Your task to perform on an android device: install app "ZOOM Cloud Meetings" Image 0: 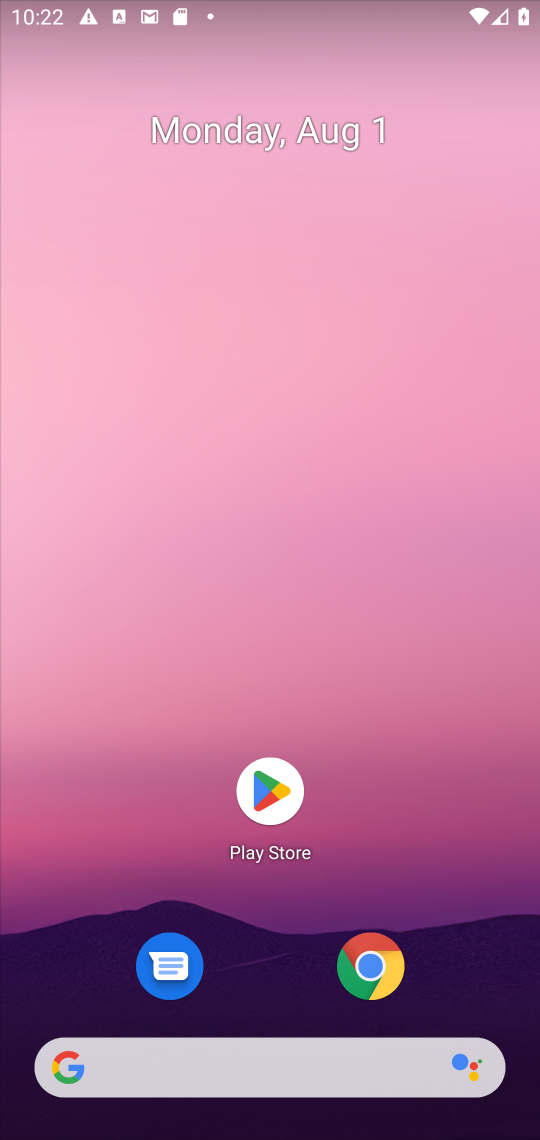
Step 0: click (288, 766)
Your task to perform on an android device: install app "ZOOM Cloud Meetings" Image 1: 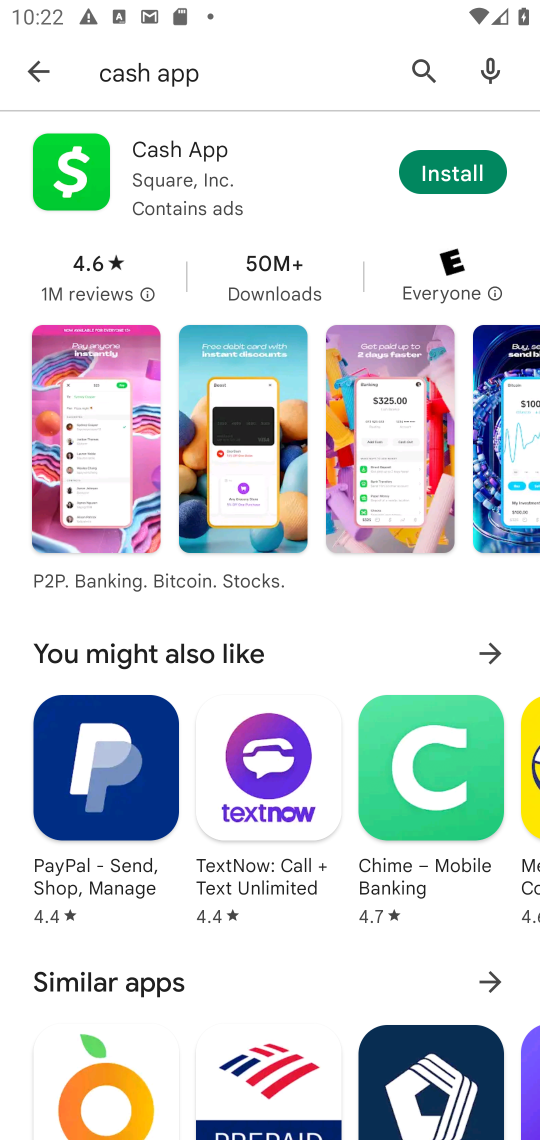
Step 1: click (419, 71)
Your task to perform on an android device: install app "ZOOM Cloud Meetings" Image 2: 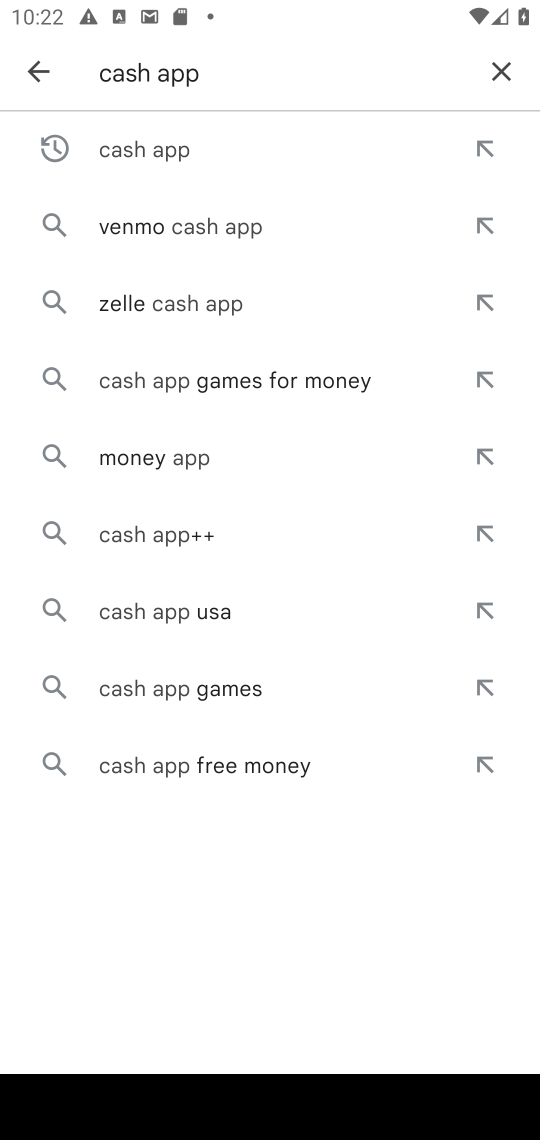
Step 2: click (503, 66)
Your task to perform on an android device: install app "ZOOM Cloud Meetings" Image 3: 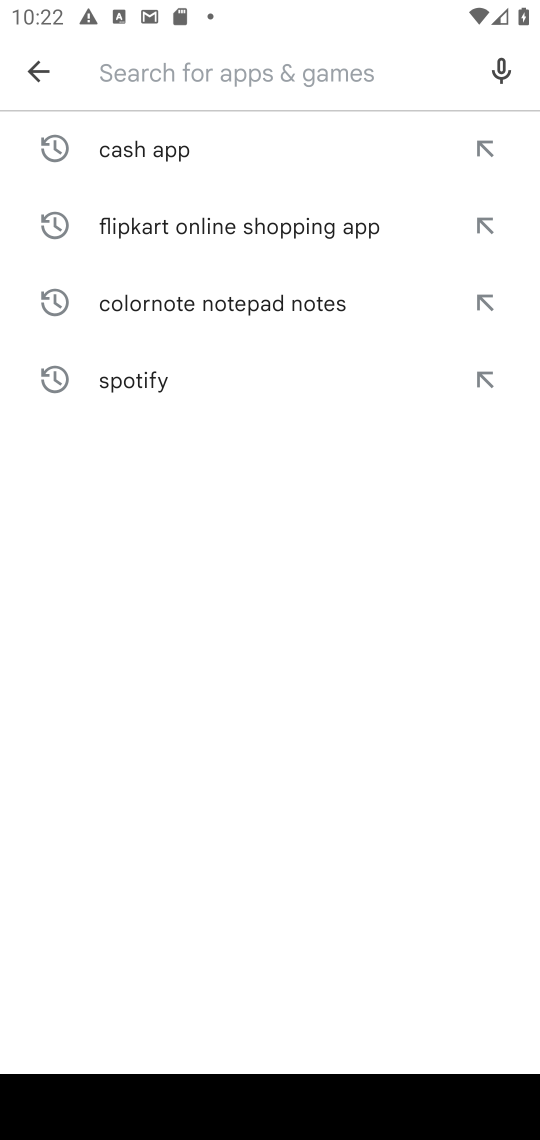
Step 3: type "ZOOM Cloud Meetings"
Your task to perform on an android device: install app "ZOOM Cloud Meetings" Image 4: 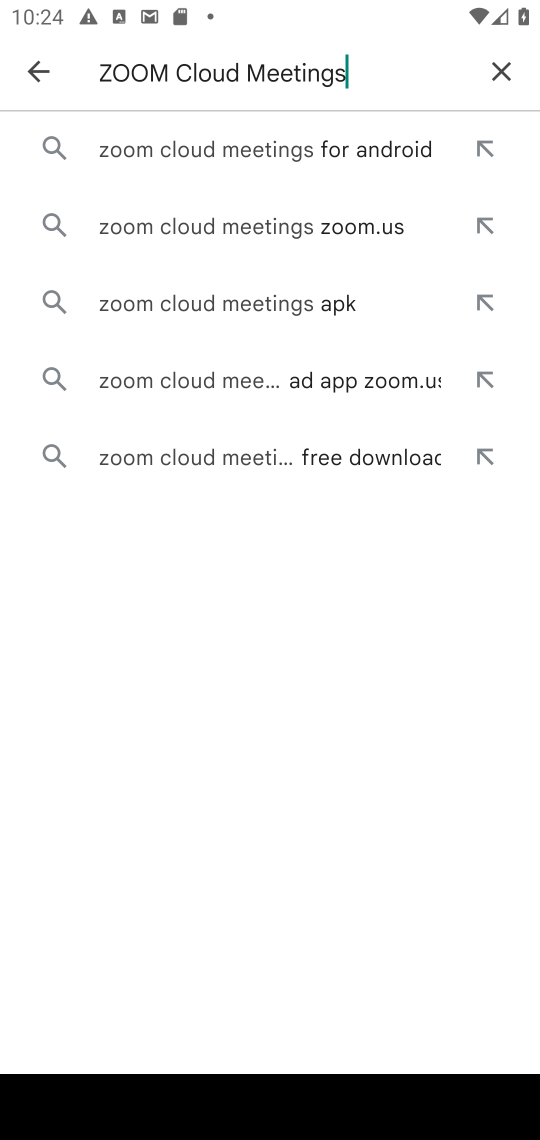
Step 4: click (233, 155)
Your task to perform on an android device: install app "ZOOM Cloud Meetings" Image 5: 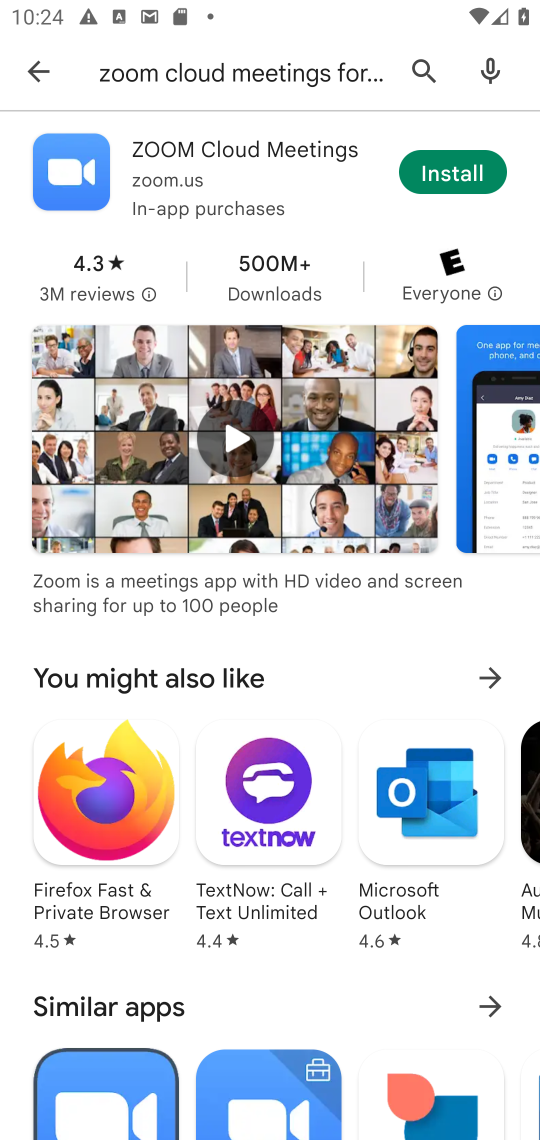
Step 5: click (489, 165)
Your task to perform on an android device: install app "ZOOM Cloud Meetings" Image 6: 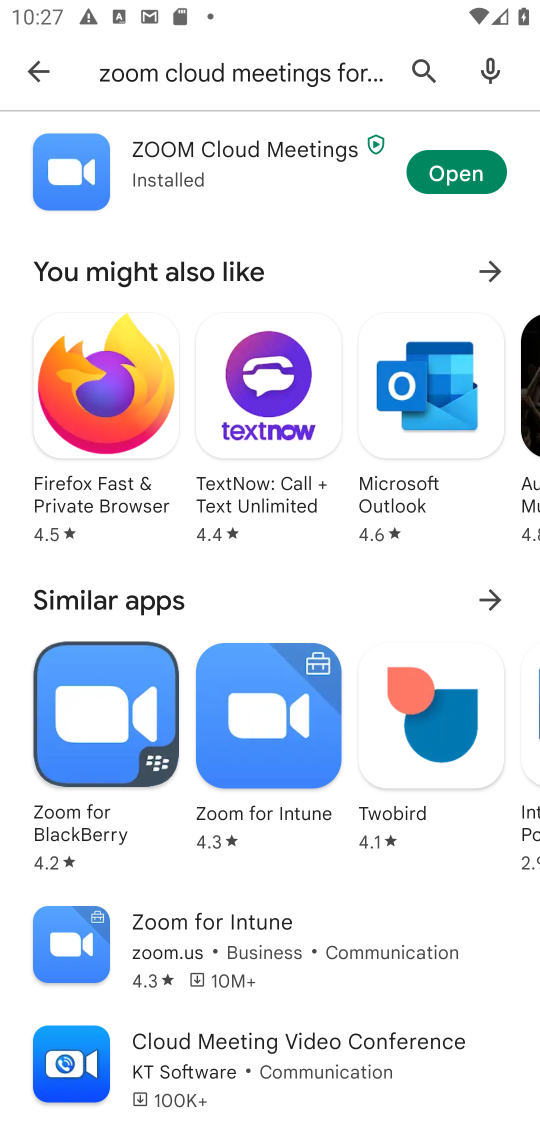
Step 6: click (421, 181)
Your task to perform on an android device: install app "ZOOM Cloud Meetings" Image 7: 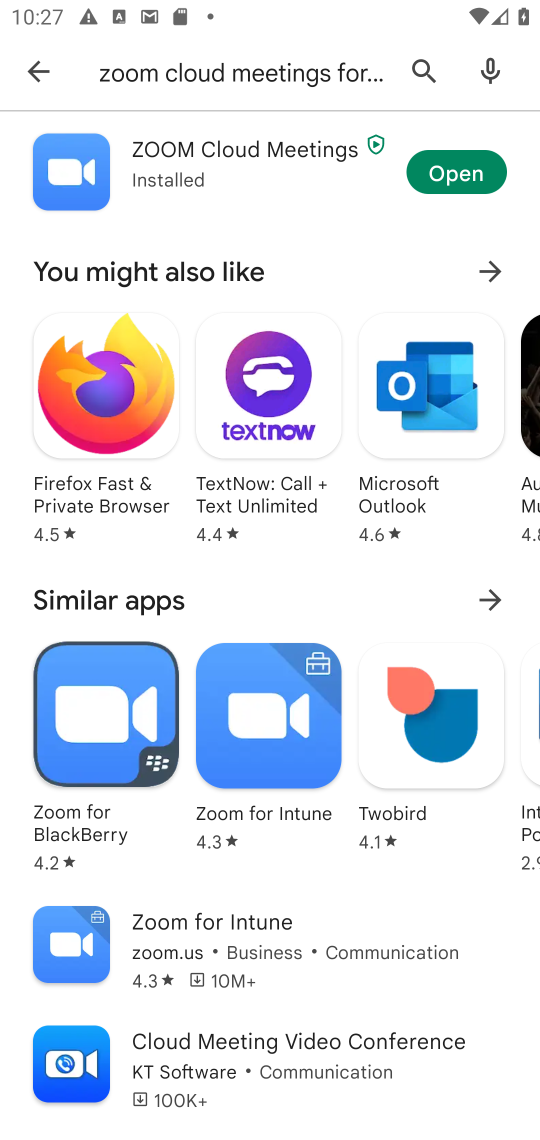
Step 7: task complete